Your task to perform on an android device: Search for pizza restaurants on Maps Image 0: 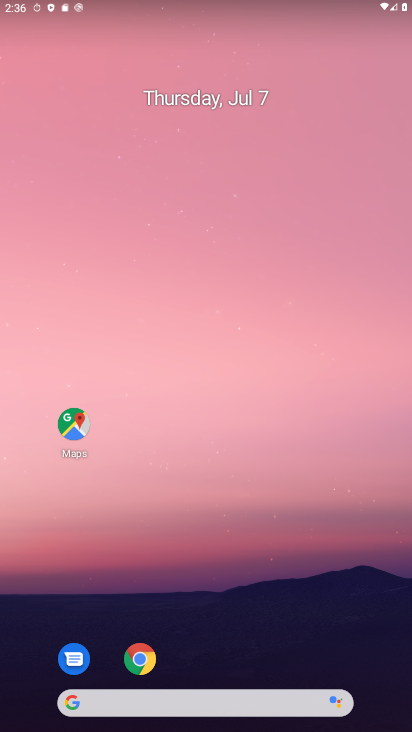
Step 0: drag from (52, 396) to (68, 428)
Your task to perform on an android device: Search for pizza restaurants on Maps Image 1: 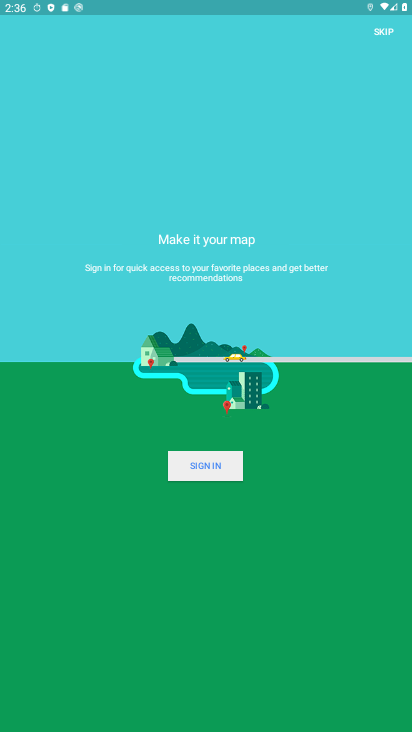
Step 1: task complete